Your task to perform on an android device: When is my next appointment? Image 0: 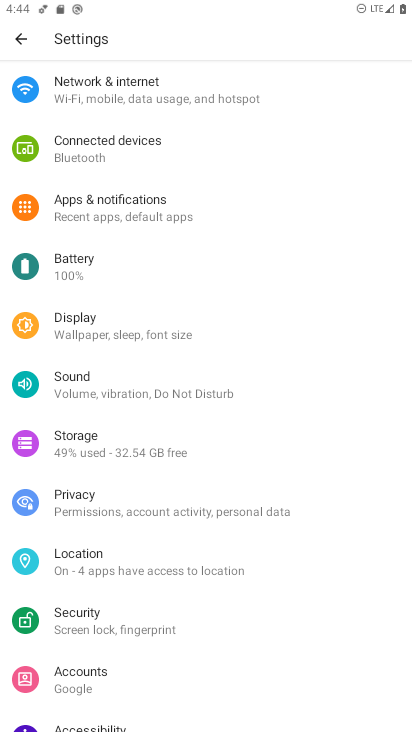
Step 0: press home button
Your task to perform on an android device: When is my next appointment? Image 1: 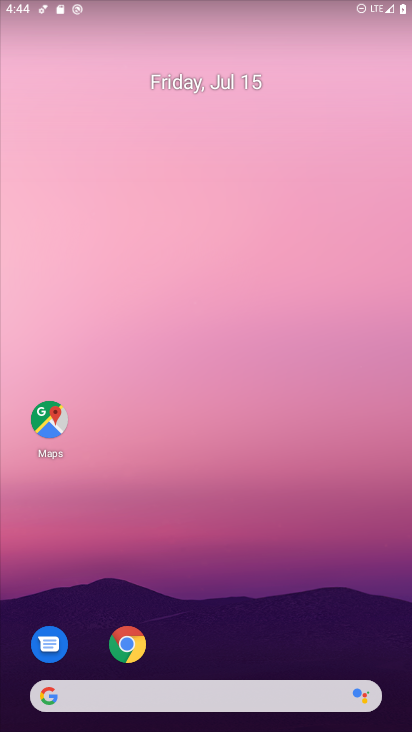
Step 1: drag from (239, 609) to (183, 205)
Your task to perform on an android device: When is my next appointment? Image 2: 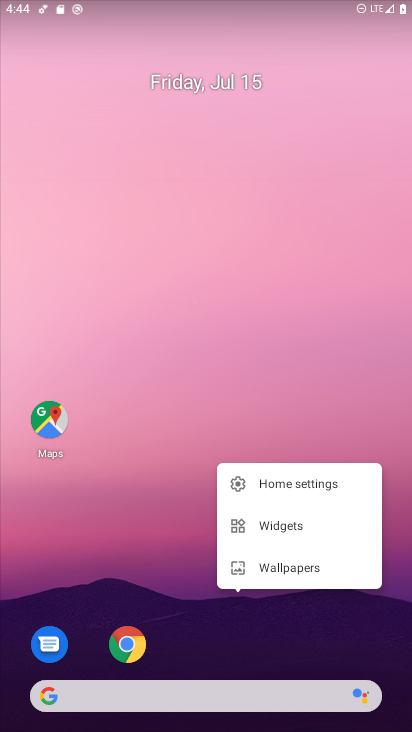
Step 2: drag from (118, 569) to (138, 208)
Your task to perform on an android device: When is my next appointment? Image 3: 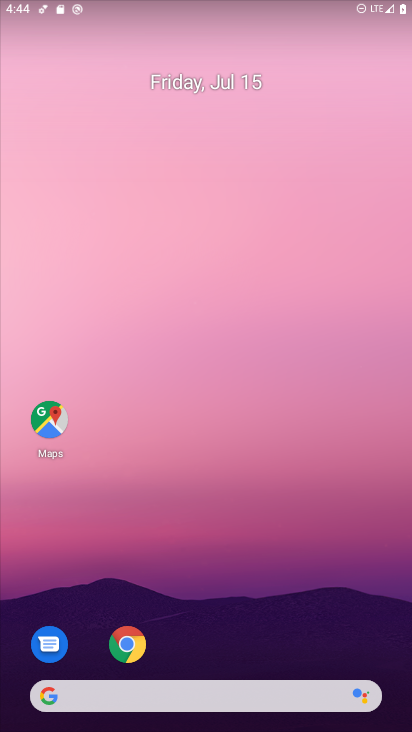
Step 3: drag from (208, 647) to (211, 309)
Your task to perform on an android device: When is my next appointment? Image 4: 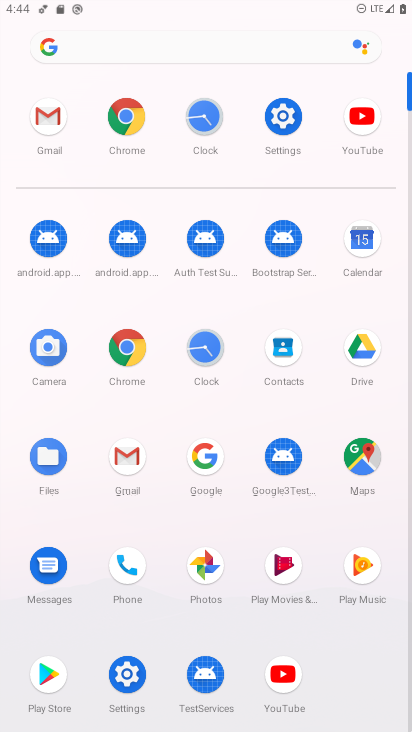
Step 4: click (353, 244)
Your task to perform on an android device: When is my next appointment? Image 5: 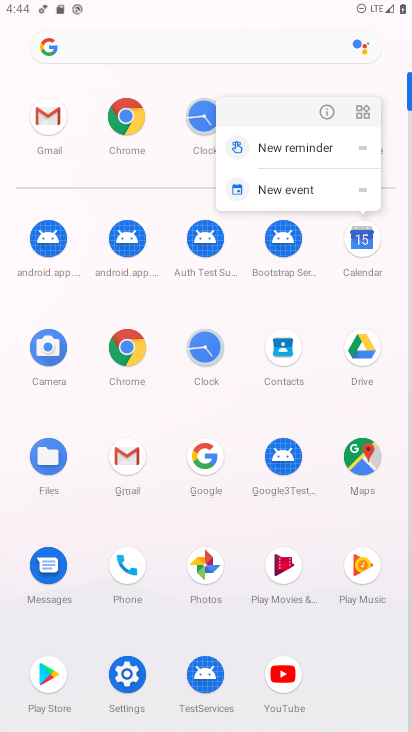
Step 5: click (353, 245)
Your task to perform on an android device: When is my next appointment? Image 6: 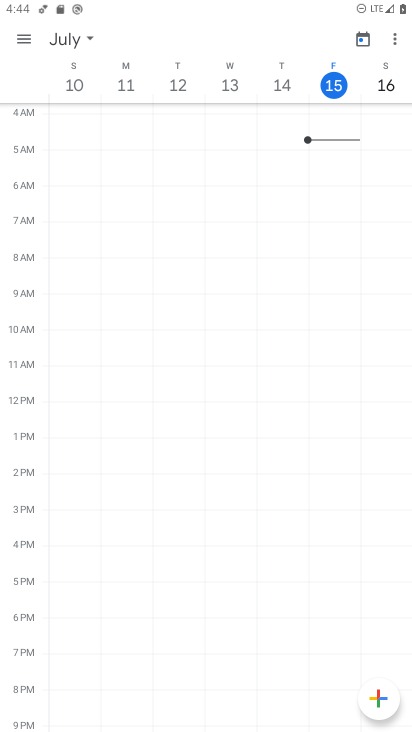
Step 6: task complete